Your task to perform on an android device: Go to battery settings Image 0: 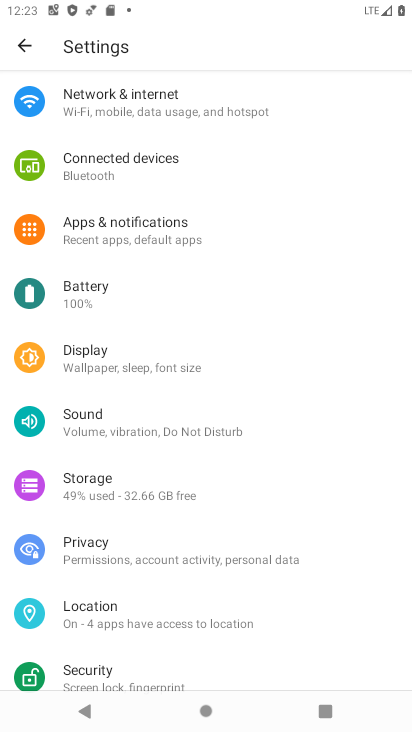
Step 0: click (84, 299)
Your task to perform on an android device: Go to battery settings Image 1: 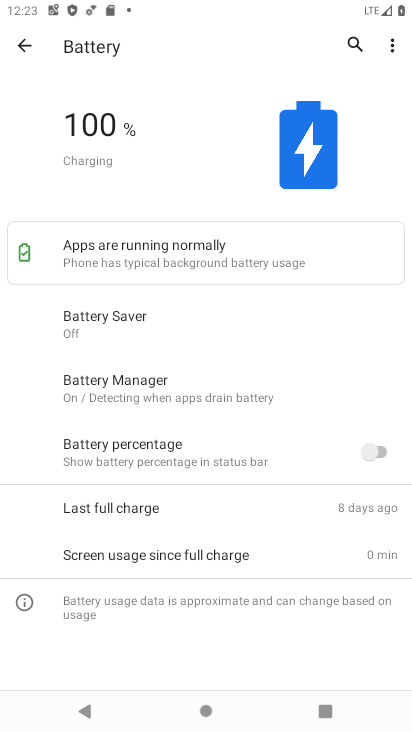
Step 1: task complete